Your task to perform on an android device: set the timer Image 0: 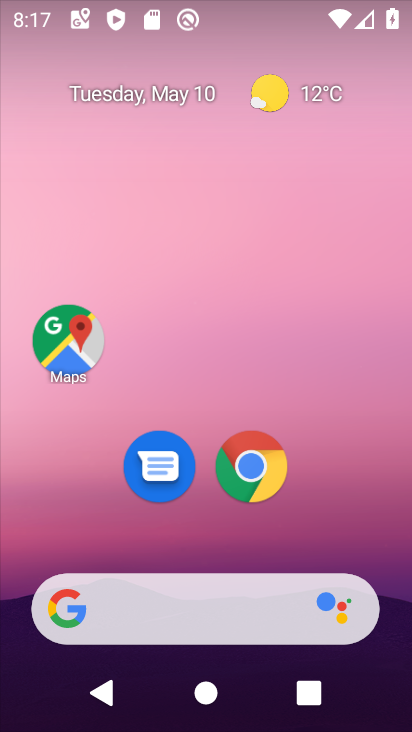
Step 0: drag from (204, 539) to (228, 11)
Your task to perform on an android device: set the timer Image 1: 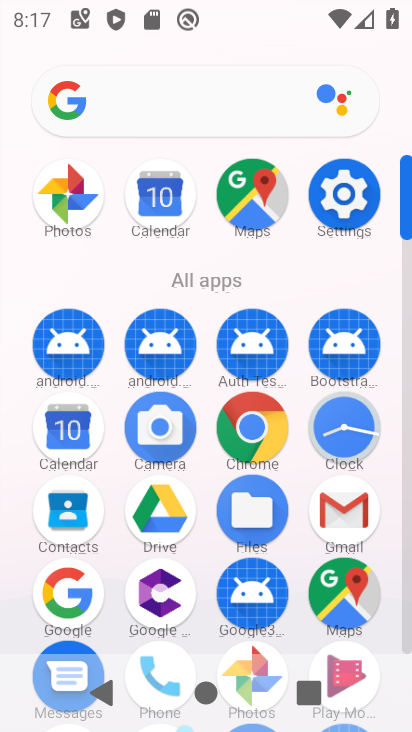
Step 1: click (340, 428)
Your task to perform on an android device: set the timer Image 2: 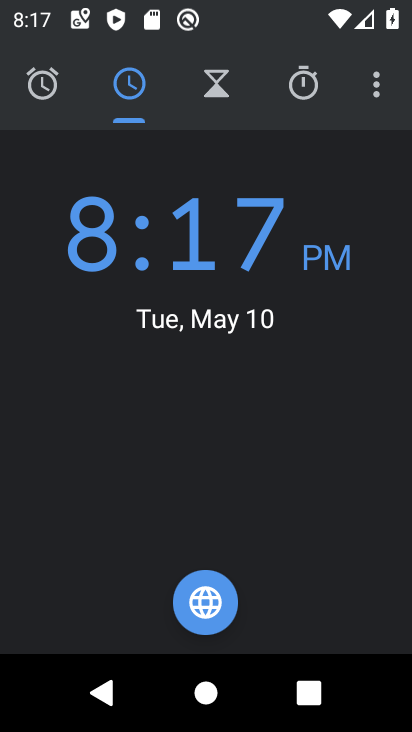
Step 2: click (236, 96)
Your task to perform on an android device: set the timer Image 3: 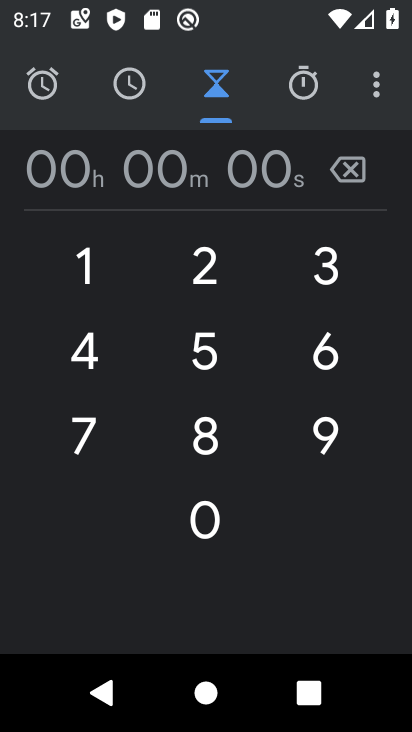
Step 3: click (209, 355)
Your task to perform on an android device: set the timer Image 4: 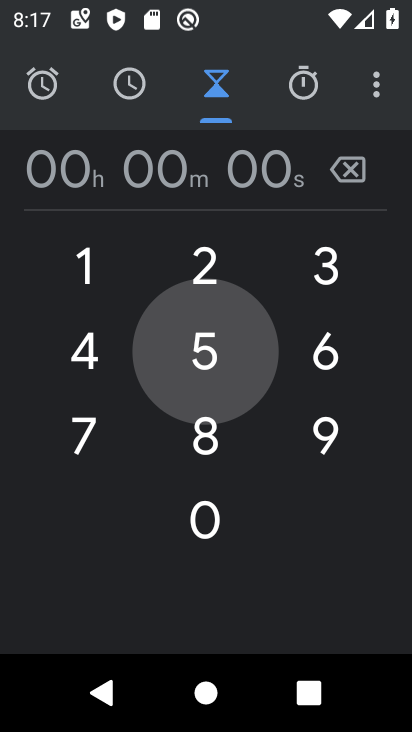
Step 4: click (209, 422)
Your task to perform on an android device: set the timer Image 5: 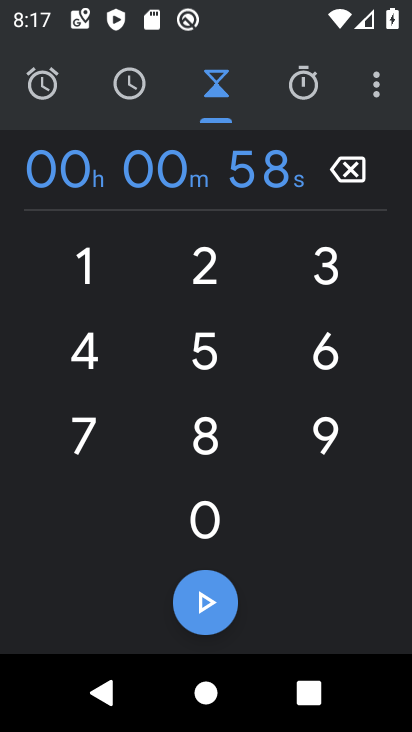
Step 5: click (216, 500)
Your task to perform on an android device: set the timer Image 6: 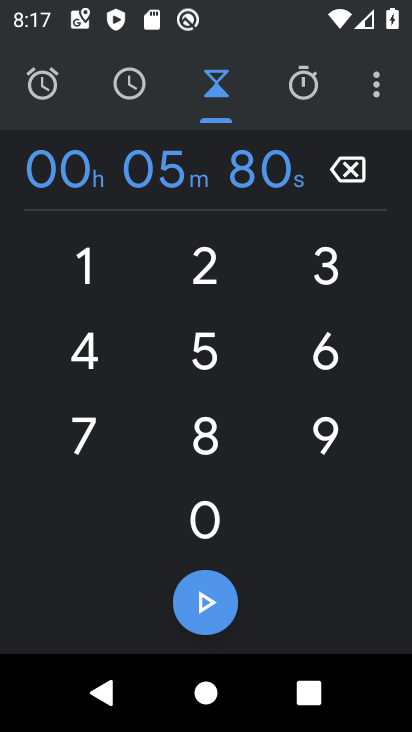
Step 6: click (200, 594)
Your task to perform on an android device: set the timer Image 7: 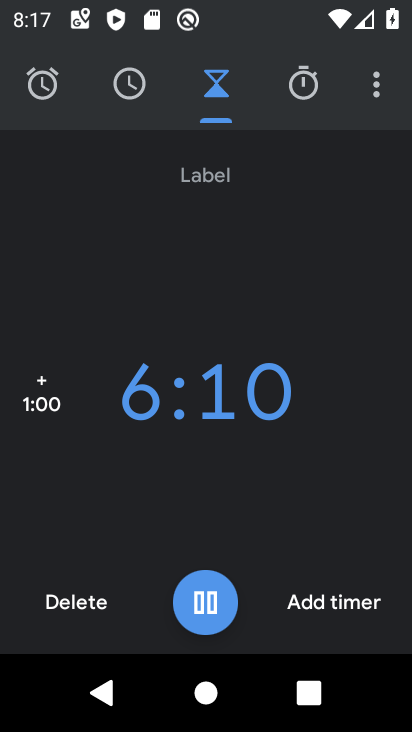
Step 7: task complete